Your task to perform on an android device: show emergency info Image 0: 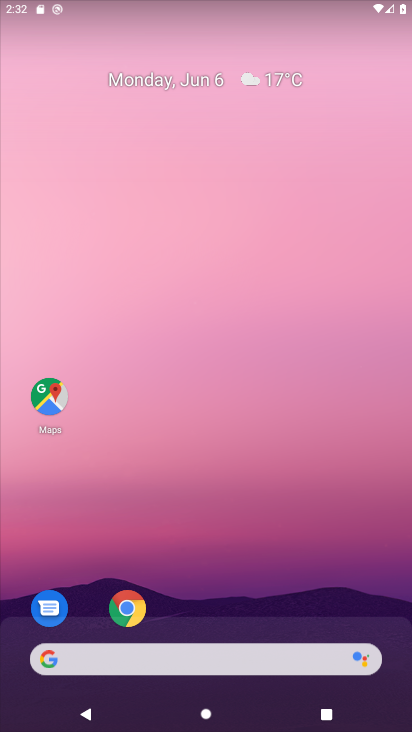
Step 0: drag from (254, 427) to (236, 7)
Your task to perform on an android device: show emergency info Image 1: 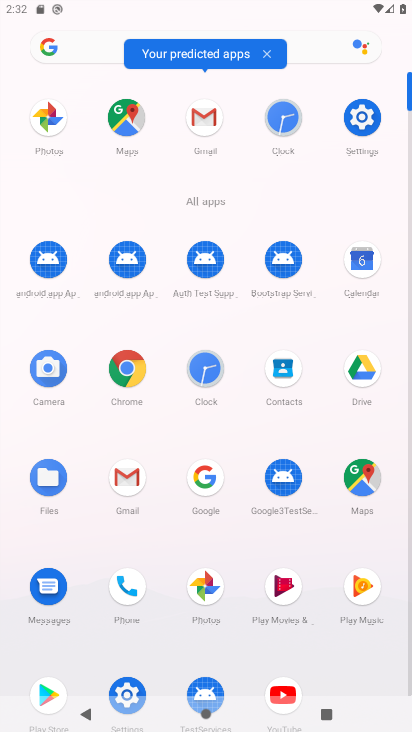
Step 1: click (352, 111)
Your task to perform on an android device: show emergency info Image 2: 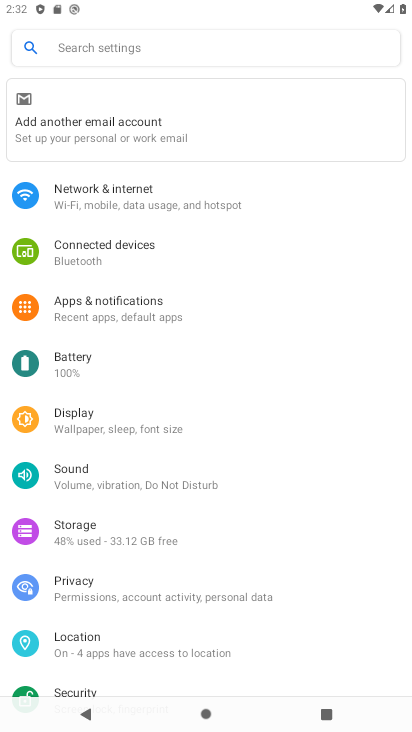
Step 2: drag from (129, 661) to (257, 157)
Your task to perform on an android device: show emergency info Image 3: 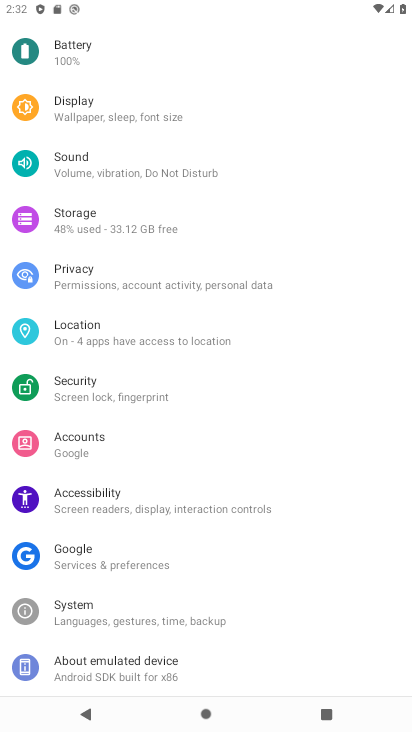
Step 3: click (136, 655)
Your task to perform on an android device: show emergency info Image 4: 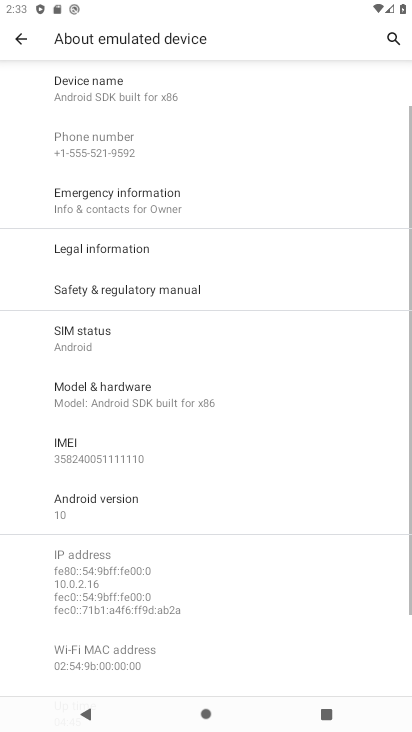
Step 4: click (124, 197)
Your task to perform on an android device: show emergency info Image 5: 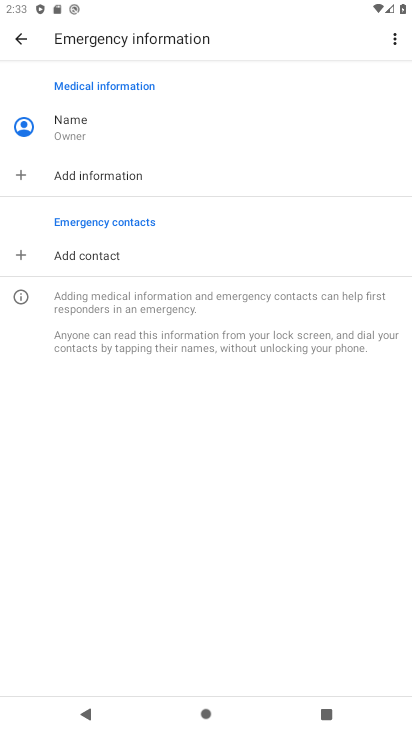
Step 5: task complete